Your task to perform on an android device: install app "The Home Depot" Image 0: 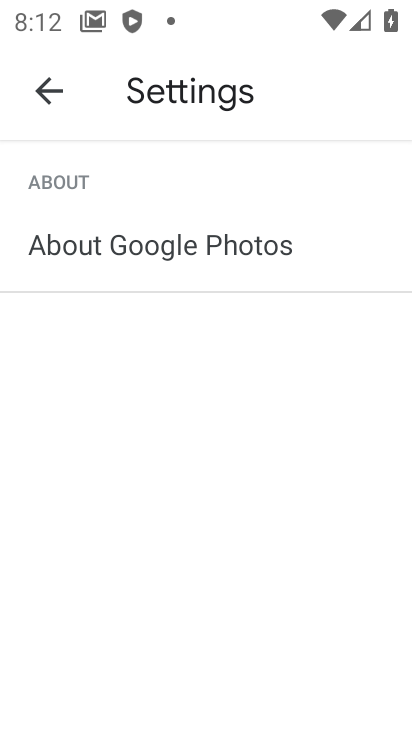
Step 0: press home button
Your task to perform on an android device: install app "The Home Depot" Image 1: 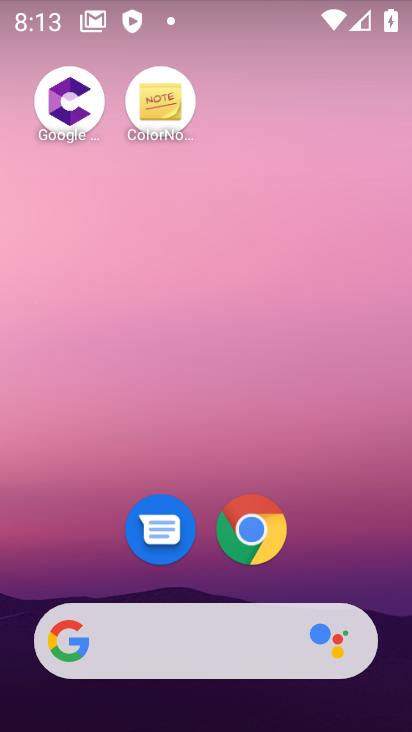
Step 1: drag from (335, 582) to (315, 29)
Your task to perform on an android device: install app "The Home Depot" Image 2: 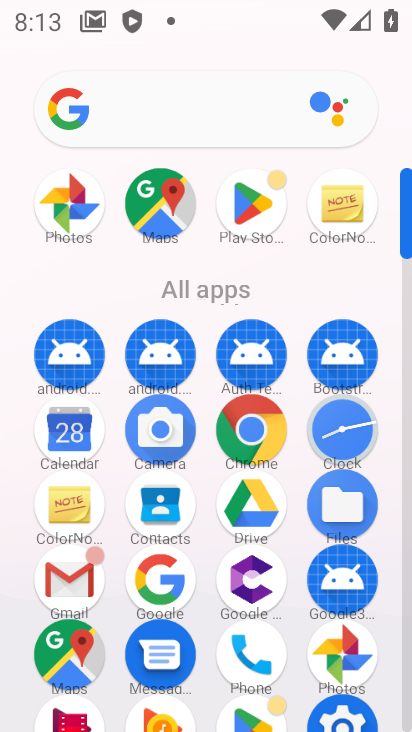
Step 2: click (246, 195)
Your task to perform on an android device: install app "The Home Depot" Image 3: 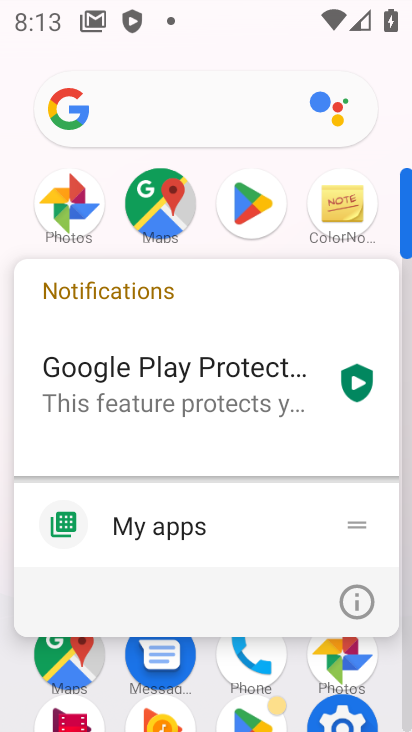
Step 3: click (248, 210)
Your task to perform on an android device: install app "The Home Depot" Image 4: 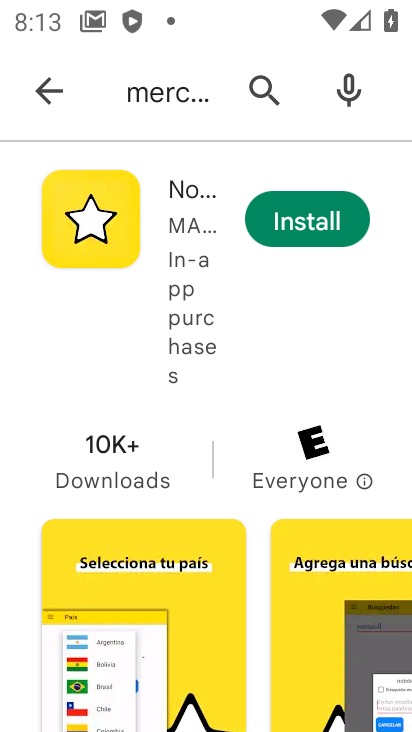
Step 4: click (261, 90)
Your task to perform on an android device: install app "The Home Depot" Image 5: 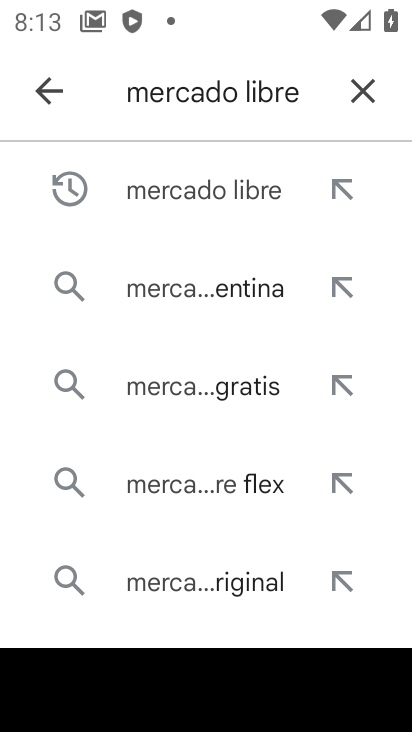
Step 5: click (368, 98)
Your task to perform on an android device: install app "The Home Depot" Image 6: 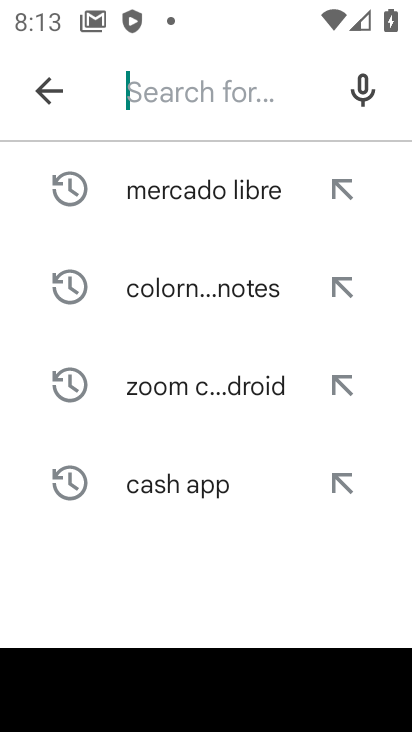
Step 6: click (213, 103)
Your task to perform on an android device: install app "The Home Depot" Image 7: 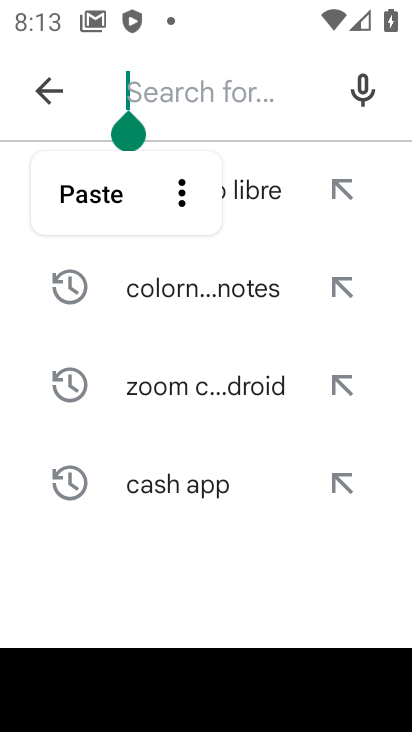
Step 7: type "The Home Depot"
Your task to perform on an android device: install app "The Home Depot" Image 8: 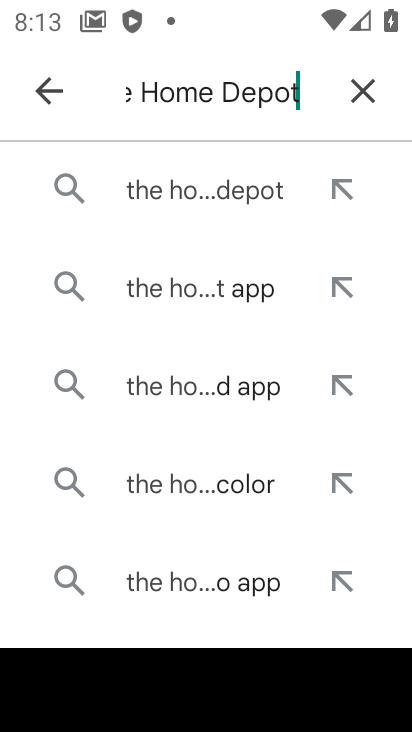
Step 8: click (187, 195)
Your task to perform on an android device: install app "The Home Depot" Image 9: 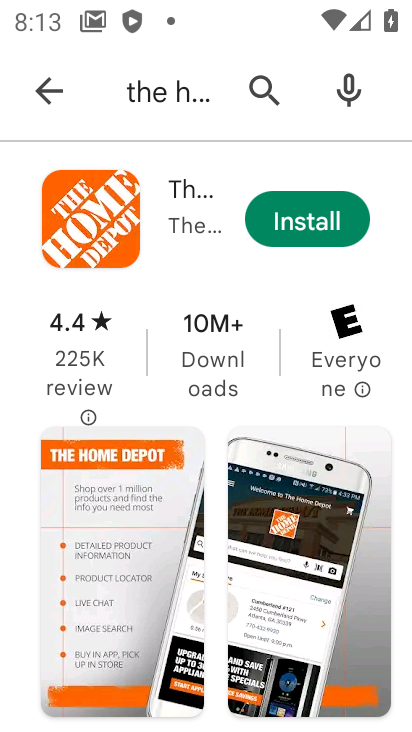
Step 9: click (299, 223)
Your task to perform on an android device: install app "The Home Depot" Image 10: 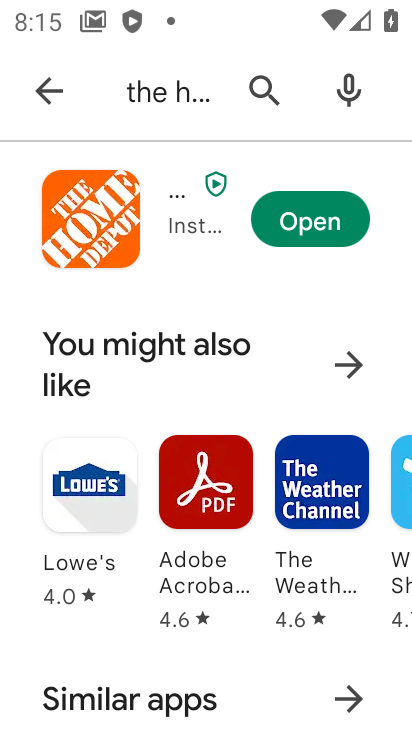
Step 10: task complete